Your task to perform on an android device: change the clock display to show seconds Image 0: 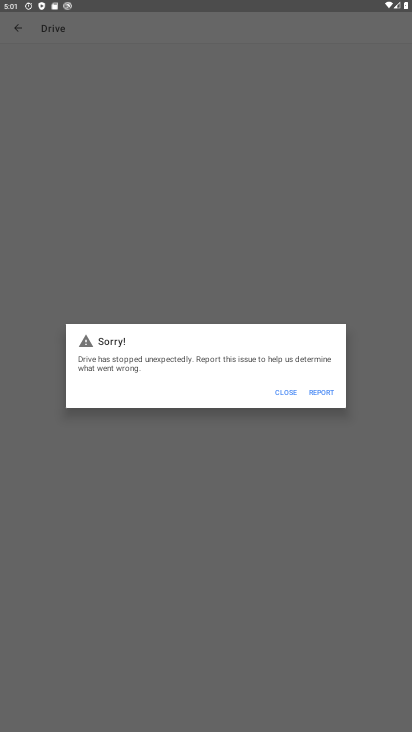
Step 0: press home button
Your task to perform on an android device: change the clock display to show seconds Image 1: 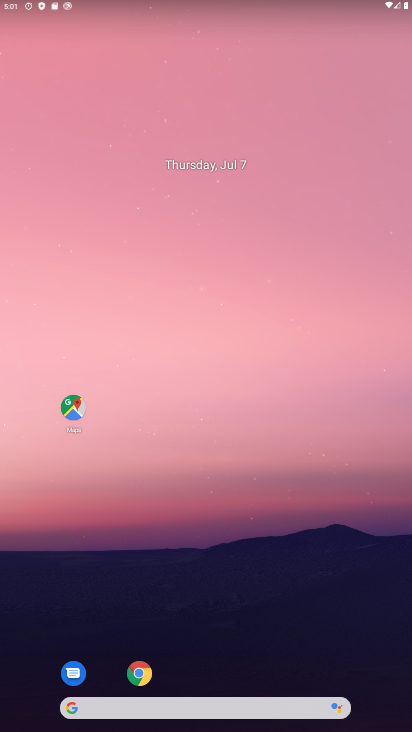
Step 1: drag from (287, 700) to (303, 233)
Your task to perform on an android device: change the clock display to show seconds Image 2: 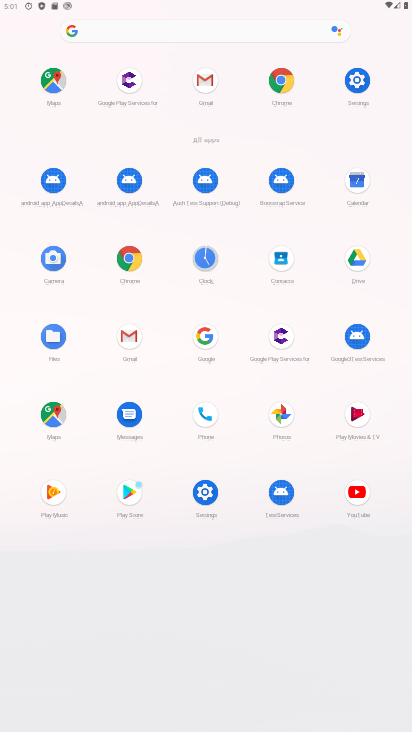
Step 2: click (205, 258)
Your task to perform on an android device: change the clock display to show seconds Image 3: 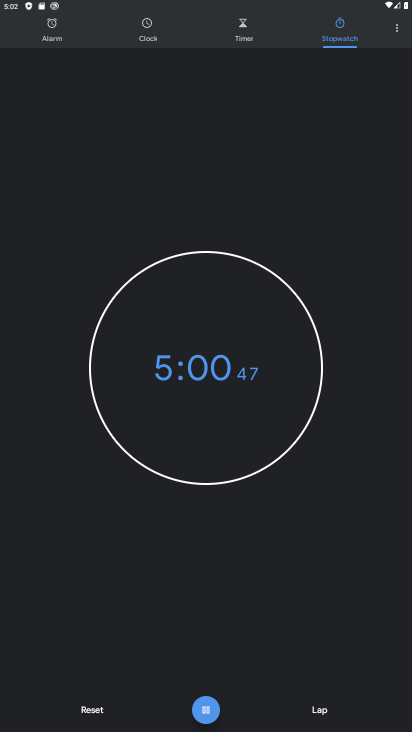
Step 3: click (393, 24)
Your task to perform on an android device: change the clock display to show seconds Image 4: 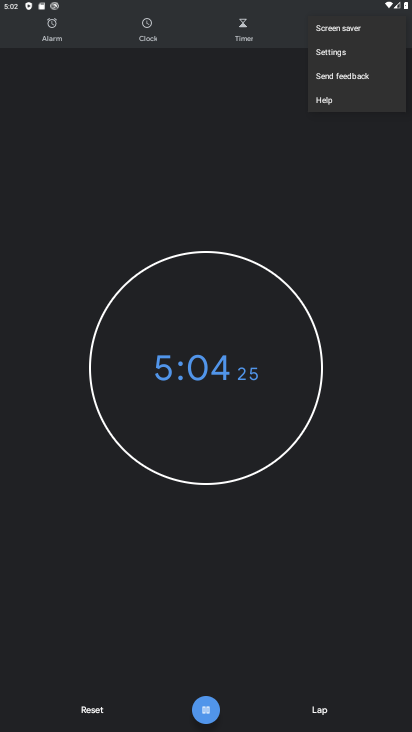
Step 4: click (346, 56)
Your task to perform on an android device: change the clock display to show seconds Image 5: 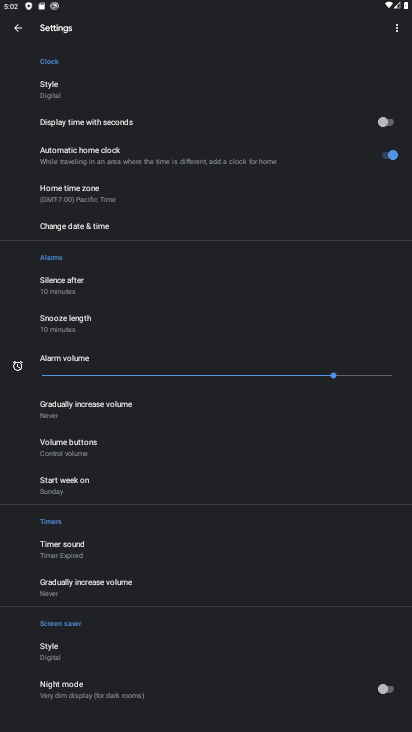
Step 5: click (393, 119)
Your task to perform on an android device: change the clock display to show seconds Image 6: 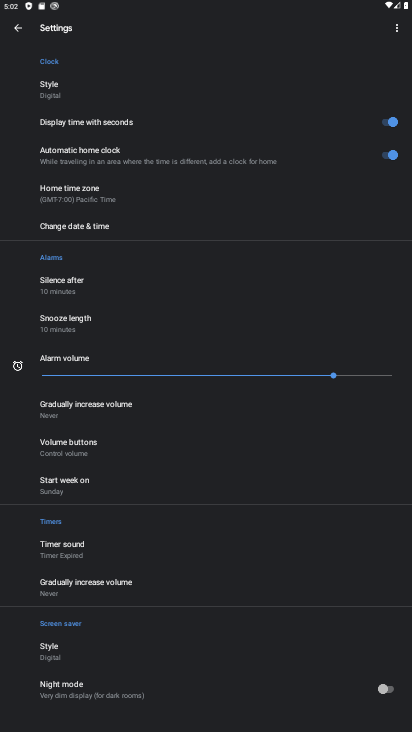
Step 6: task complete